Your task to perform on an android device: Open Chrome and go to settings Image 0: 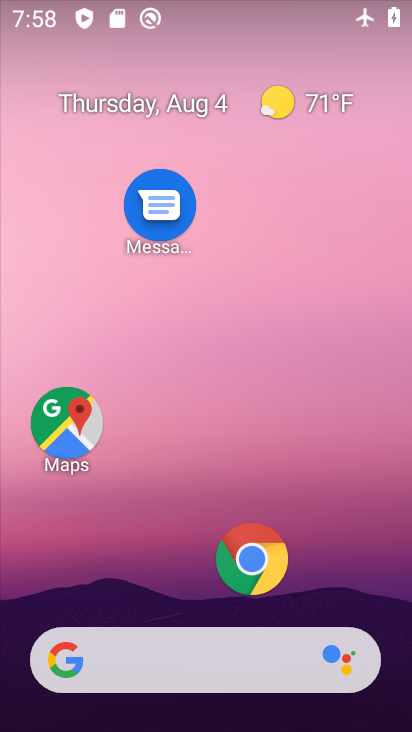
Step 0: drag from (222, 617) to (317, 25)
Your task to perform on an android device: Open Chrome and go to settings Image 1: 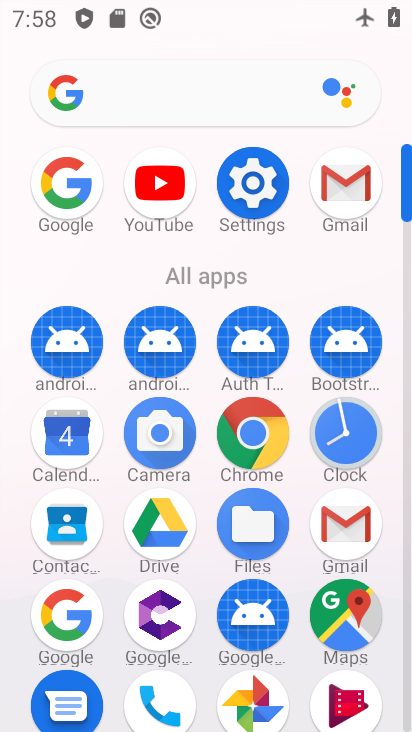
Step 1: click (270, 445)
Your task to perform on an android device: Open Chrome and go to settings Image 2: 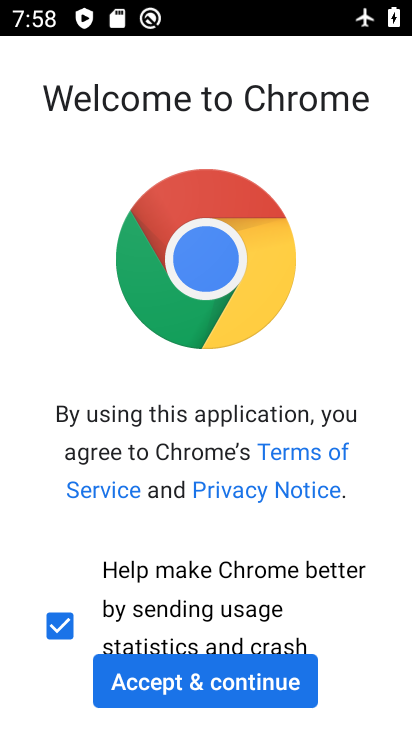
Step 2: click (260, 673)
Your task to perform on an android device: Open Chrome and go to settings Image 3: 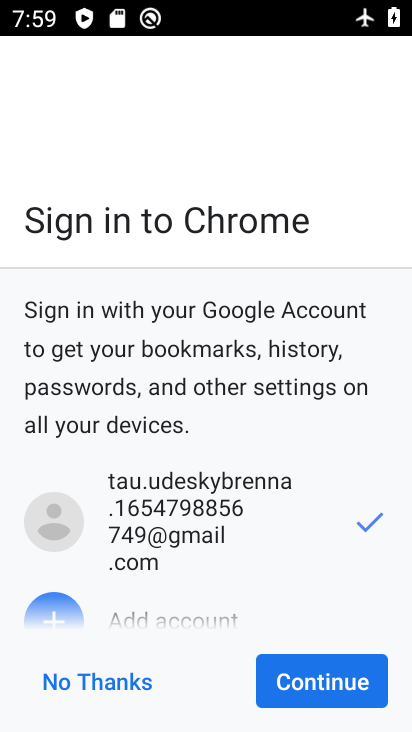
Step 3: click (324, 696)
Your task to perform on an android device: Open Chrome and go to settings Image 4: 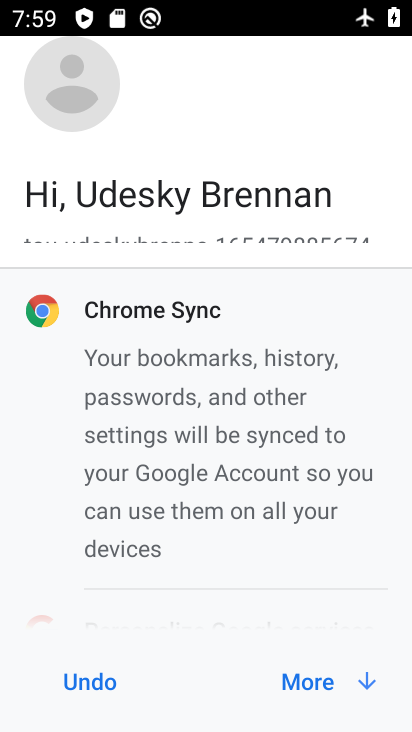
Step 4: click (351, 679)
Your task to perform on an android device: Open Chrome and go to settings Image 5: 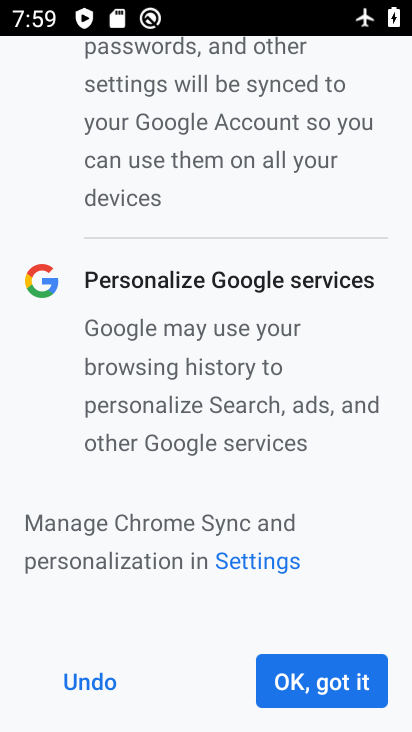
Step 5: click (307, 682)
Your task to perform on an android device: Open Chrome and go to settings Image 6: 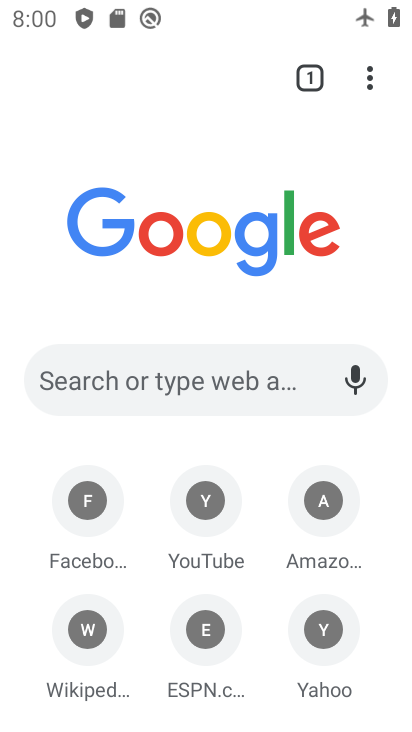
Step 6: task complete